Your task to perform on an android device: check data usage Image 0: 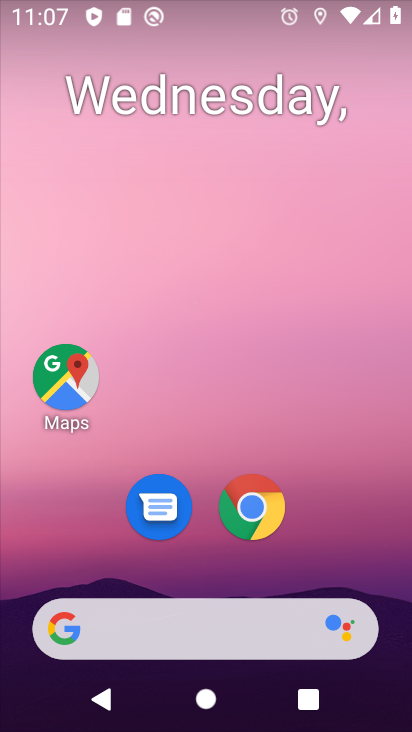
Step 0: drag from (363, 530) to (368, 78)
Your task to perform on an android device: check data usage Image 1: 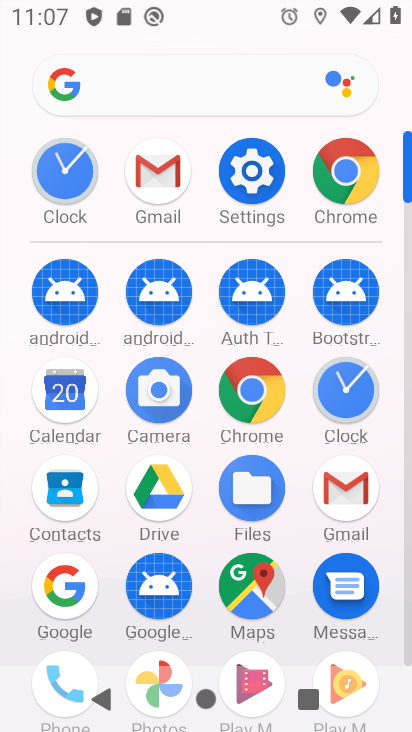
Step 1: click (254, 184)
Your task to perform on an android device: check data usage Image 2: 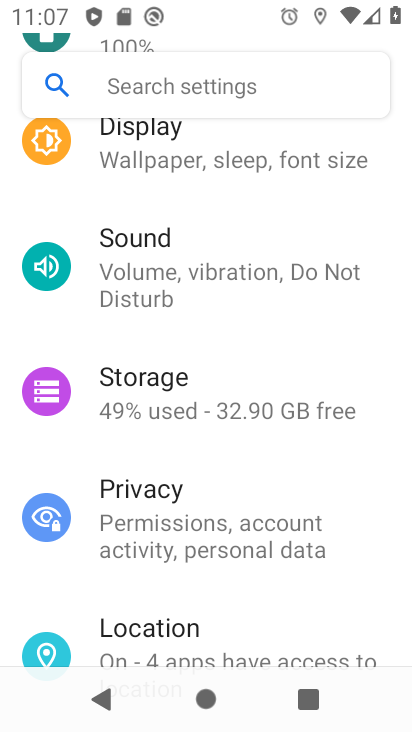
Step 2: drag from (378, 582) to (394, 369)
Your task to perform on an android device: check data usage Image 3: 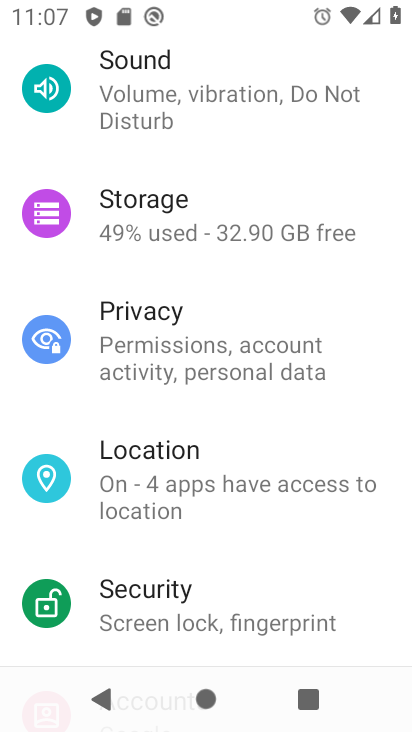
Step 3: drag from (362, 596) to (368, 341)
Your task to perform on an android device: check data usage Image 4: 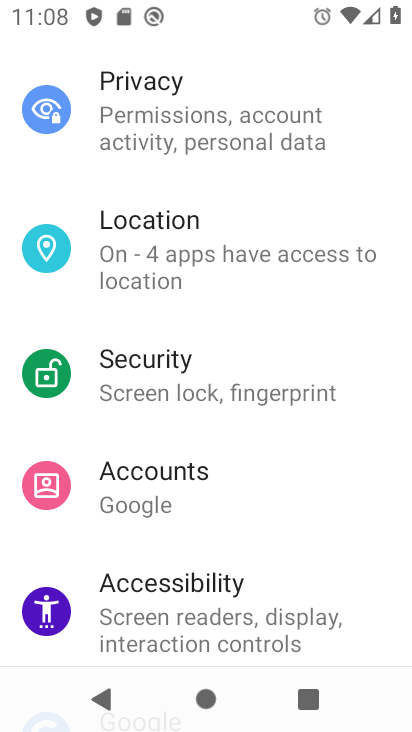
Step 4: drag from (363, 624) to (376, 395)
Your task to perform on an android device: check data usage Image 5: 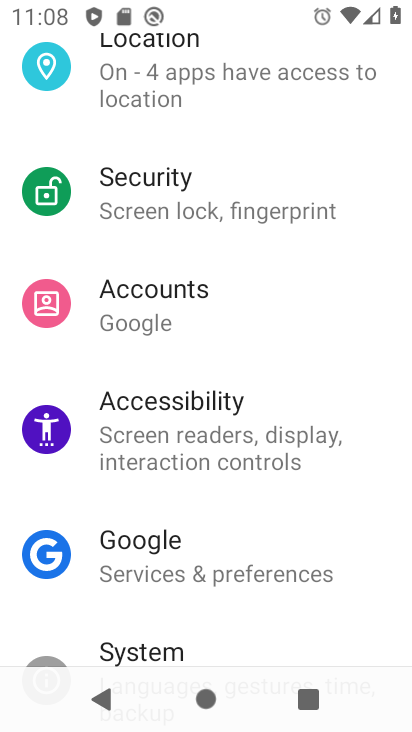
Step 5: drag from (372, 609) to (364, 413)
Your task to perform on an android device: check data usage Image 6: 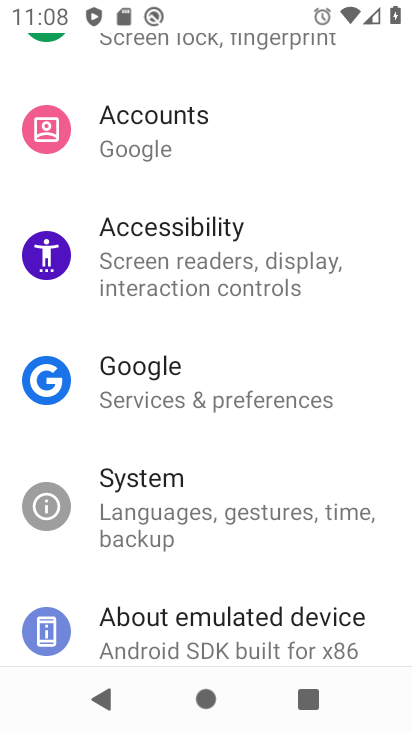
Step 6: drag from (378, 635) to (393, 415)
Your task to perform on an android device: check data usage Image 7: 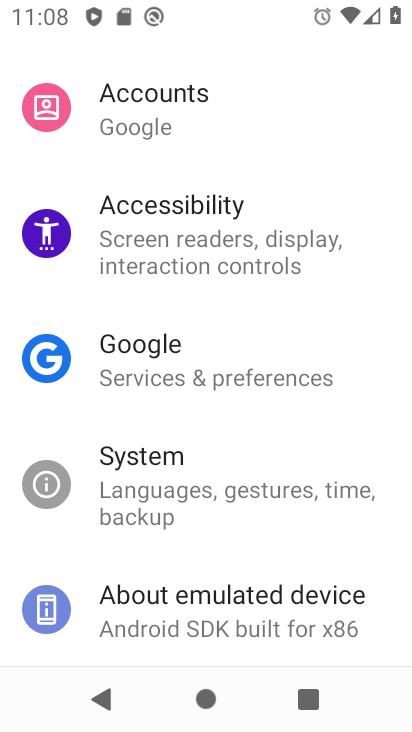
Step 7: drag from (382, 253) to (376, 440)
Your task to perform on an android device: check data usage Image 8: 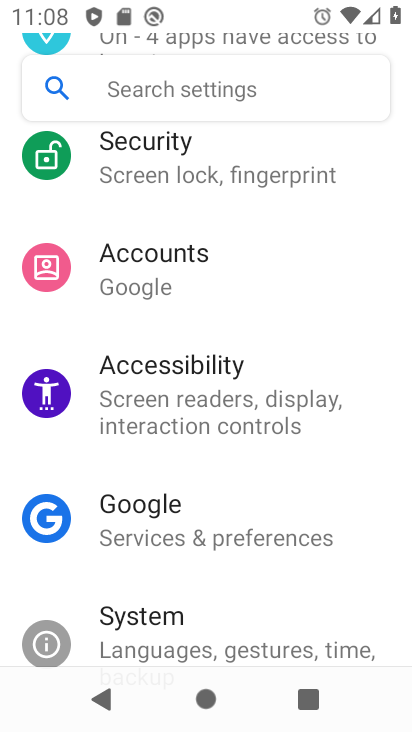
Step 8: drag from (374, 213) to (375, 426)
Your task to perform on an android device: check data usage Image 9: 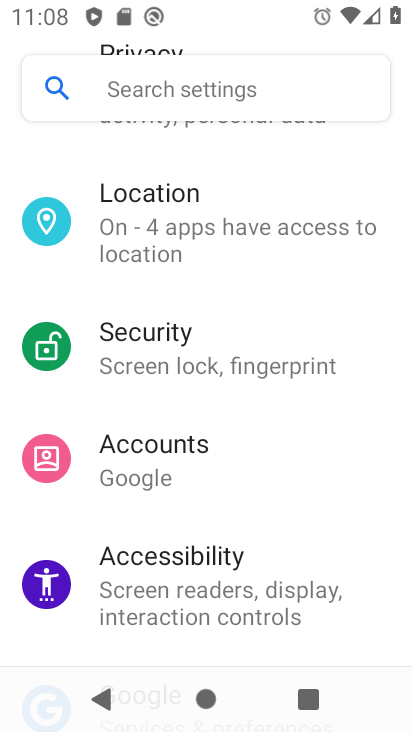
Step 9: drag from (365, 171) to (360, 393)
Your task to perform on an android device: check data usage Image 10: 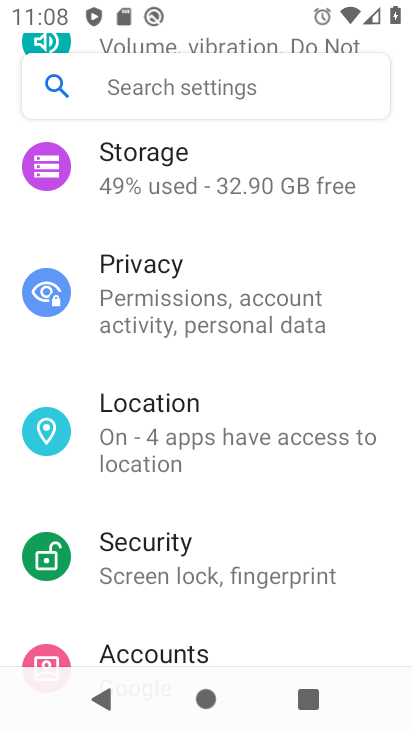
Step 10: drag from (375, 155) to (394, 335)
Your task to perform on an android device: check data usage Image 11: 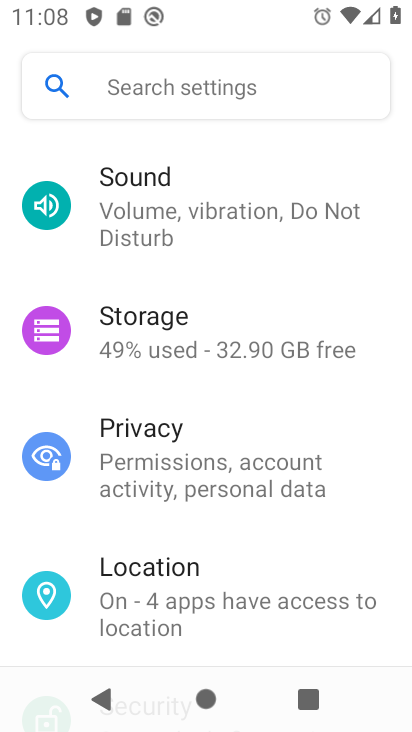
Step 11: drag from (384, 171) to (373, 385)
Your task to perform on an android device: check data usage Image 12: 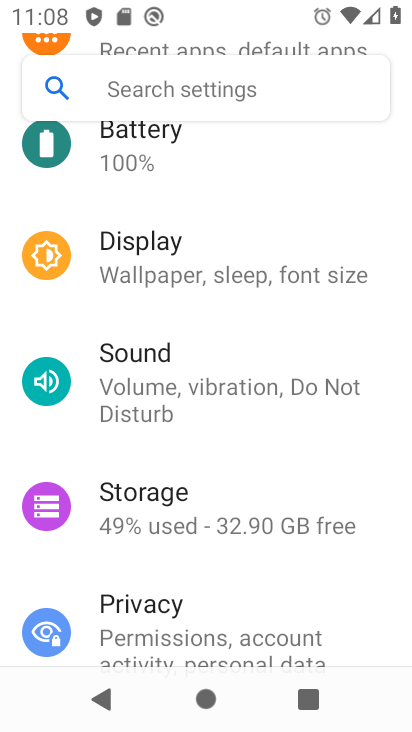
Step 12: drag from (379, 199) to (365, 400)
Your task to perform on an android device: check data usage Image 13: 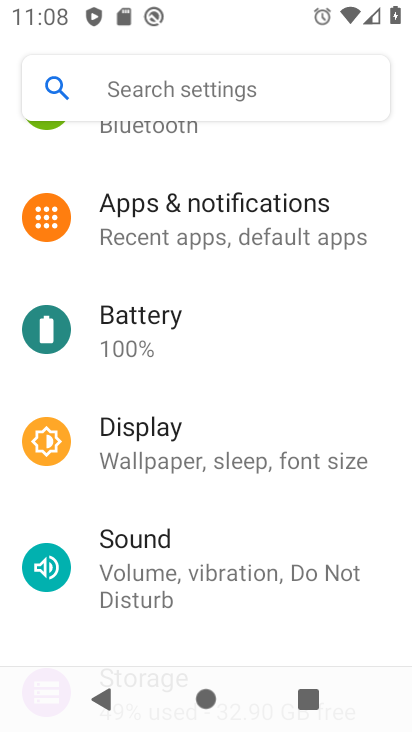
Step 13: drag from (379, 183) to (380, 373)
Your task to perform on an android device: check data usage Image 14: 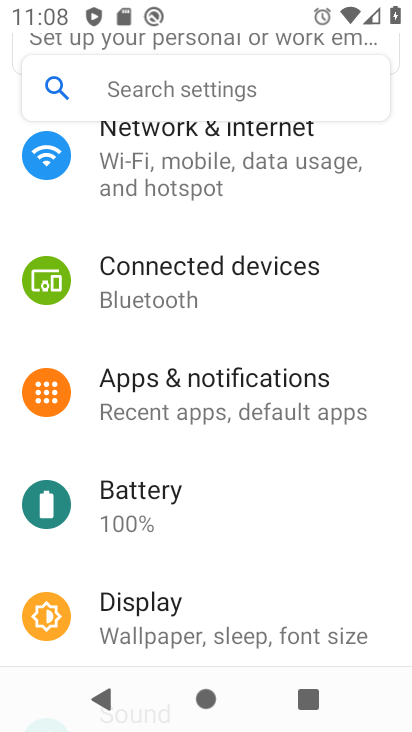
Step 14: drag from (385, 170) to (373, 328)
Your task to perform on an android device: check data usage Image 15: 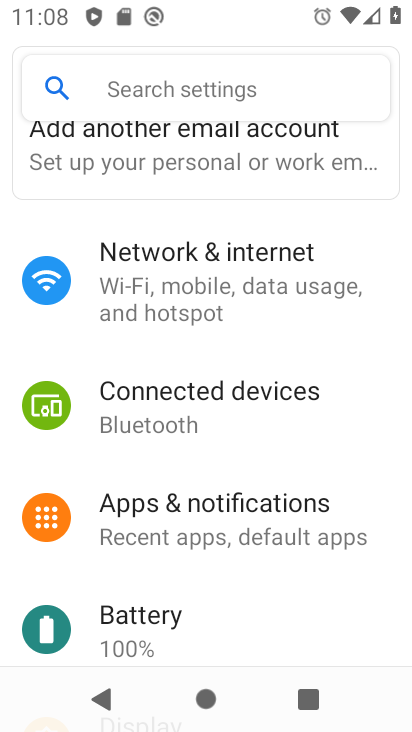
Step 15: click (281, 294)
Your task to perform on an android device: check data usage Image 16: 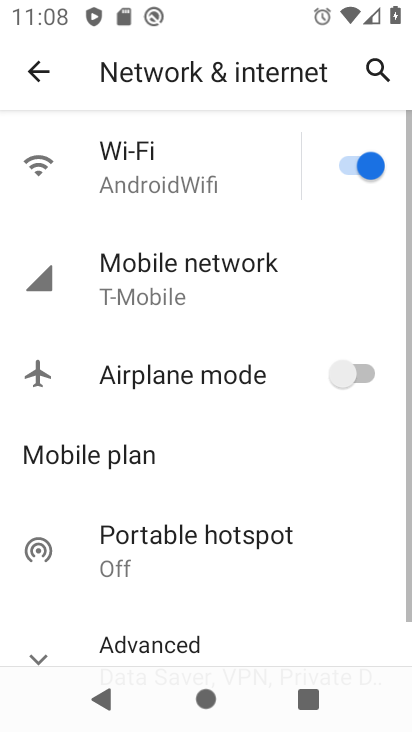
Step 16: click (249, 280)
Your task to perform on an android device: check data usage Image 17: 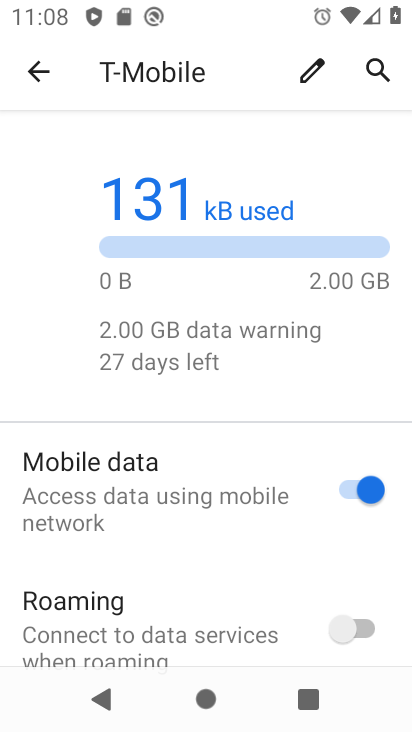
Step 17: drag from (245, 543) to (234, 290)
Your task to perform on an android device: check data usage Image 18: 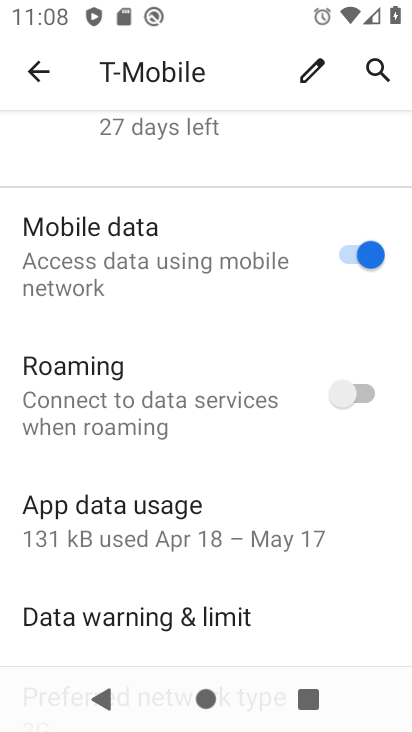
Step 18: drag from (223, 462) to (233, 242)
Your task to perform on an android device: check data usage Image 19: 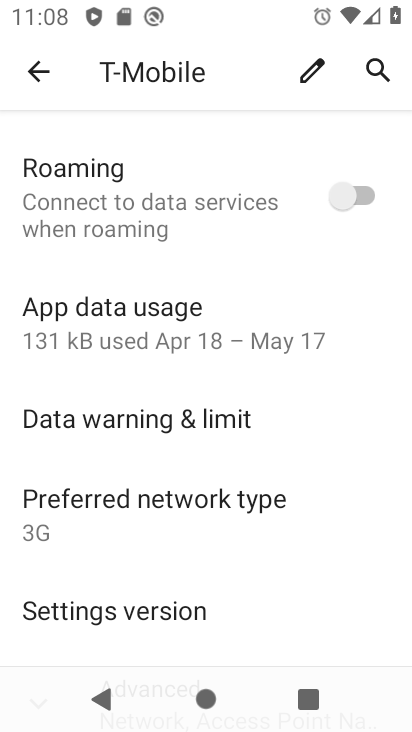
Step 19: click (206, 319)
Your task to perform on an android device: check data usage Image 20: 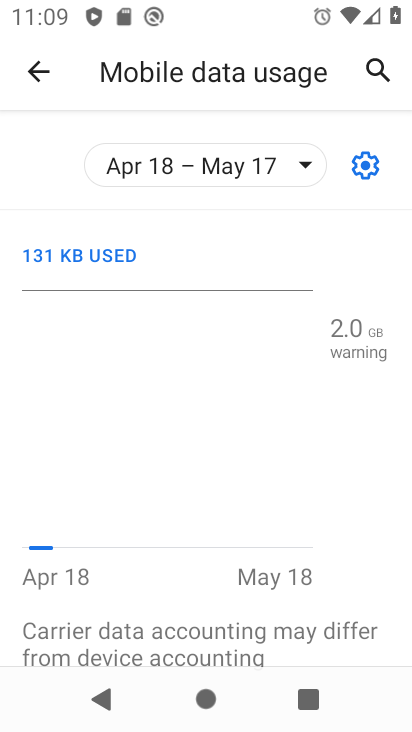
Step 20: task complete